Your task to perform on an android device: Search for pizza restaurants on Maps Image 0: 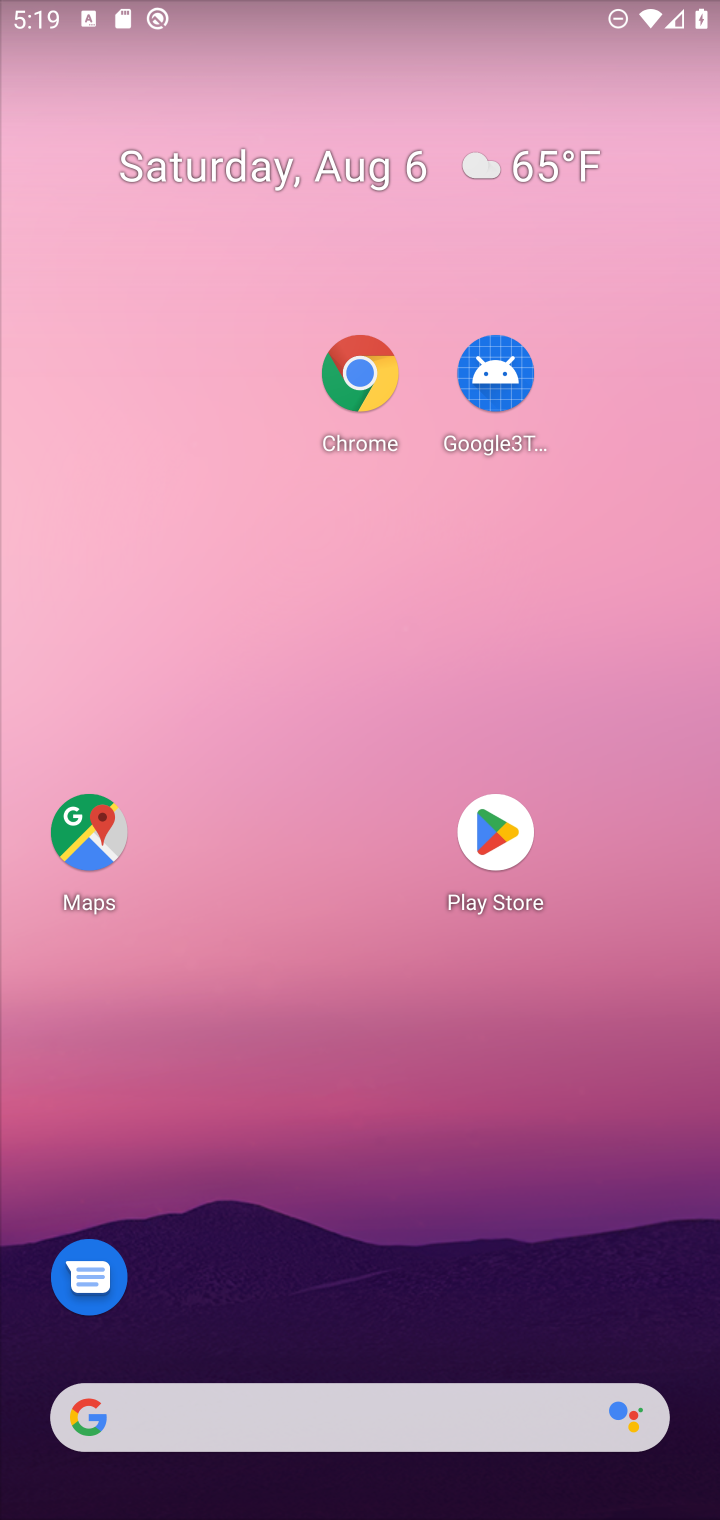
Step 0: drag from (464, 7) to (643, 839)
Your task to perform on an android device: Search for pizza restaurants on Maps Image 1: 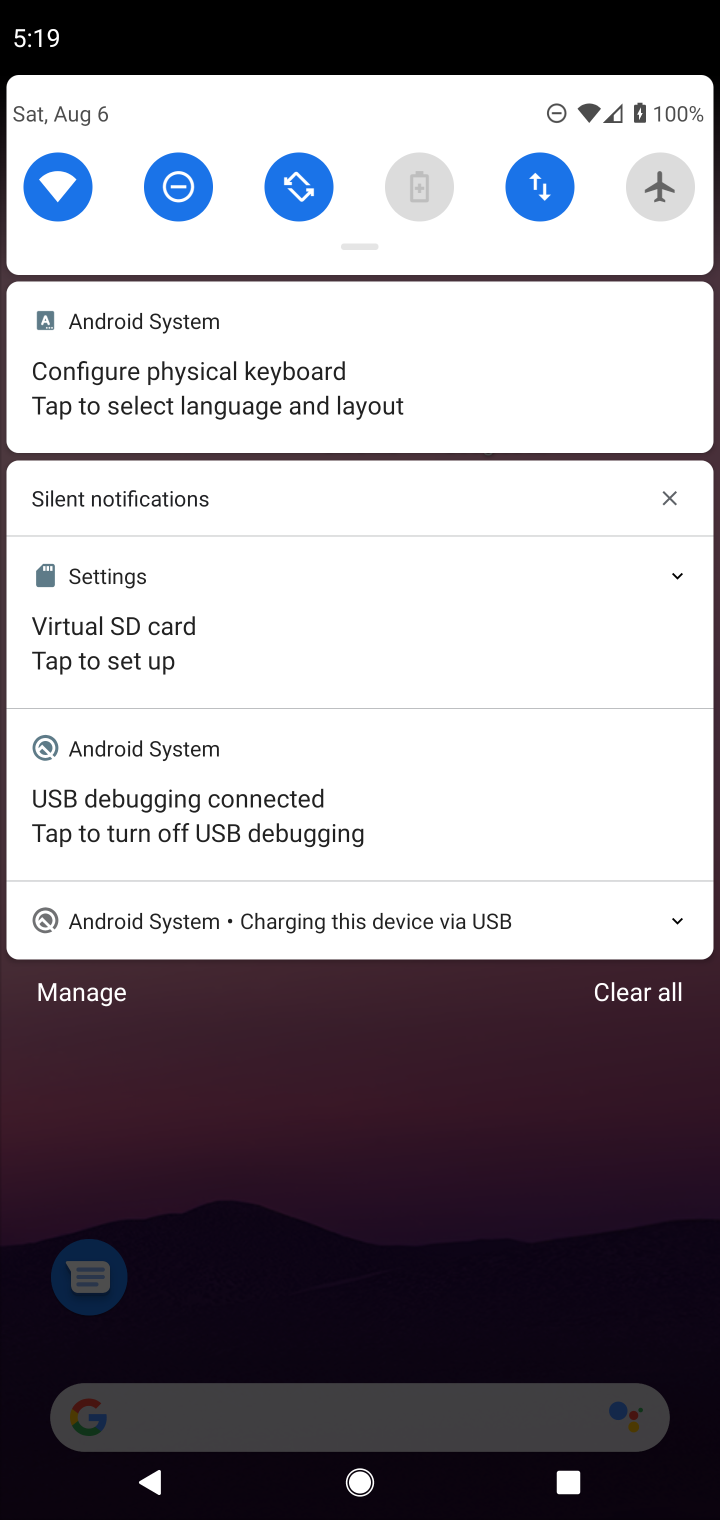
Step 1: drag from (355, 227) to (505, 1114)
Your task to perform on an android device: Search for pizza restaurants on Maps Image 2: 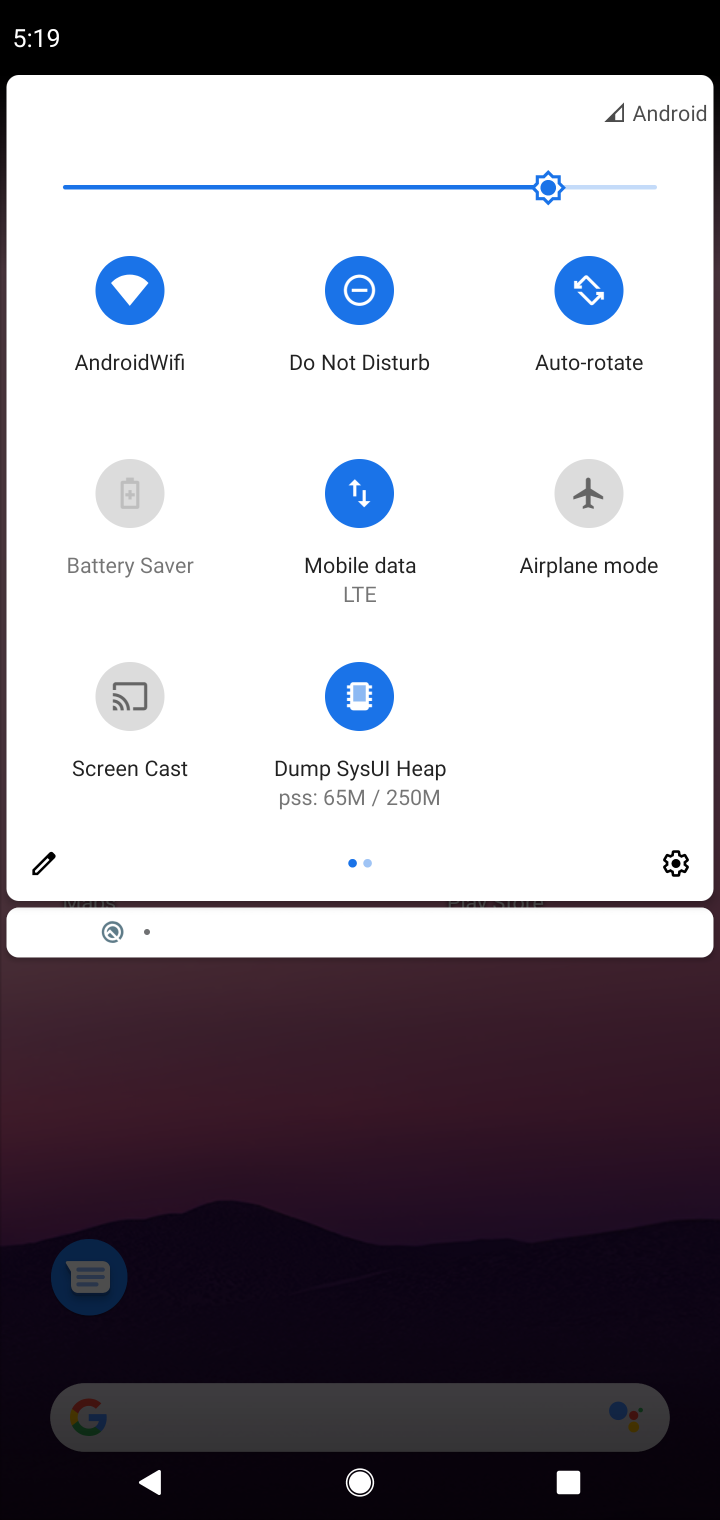
Step 2: click (559, 1132)
Your task to perform on an android device: Search for pizza restaurants on Maps Image 3: 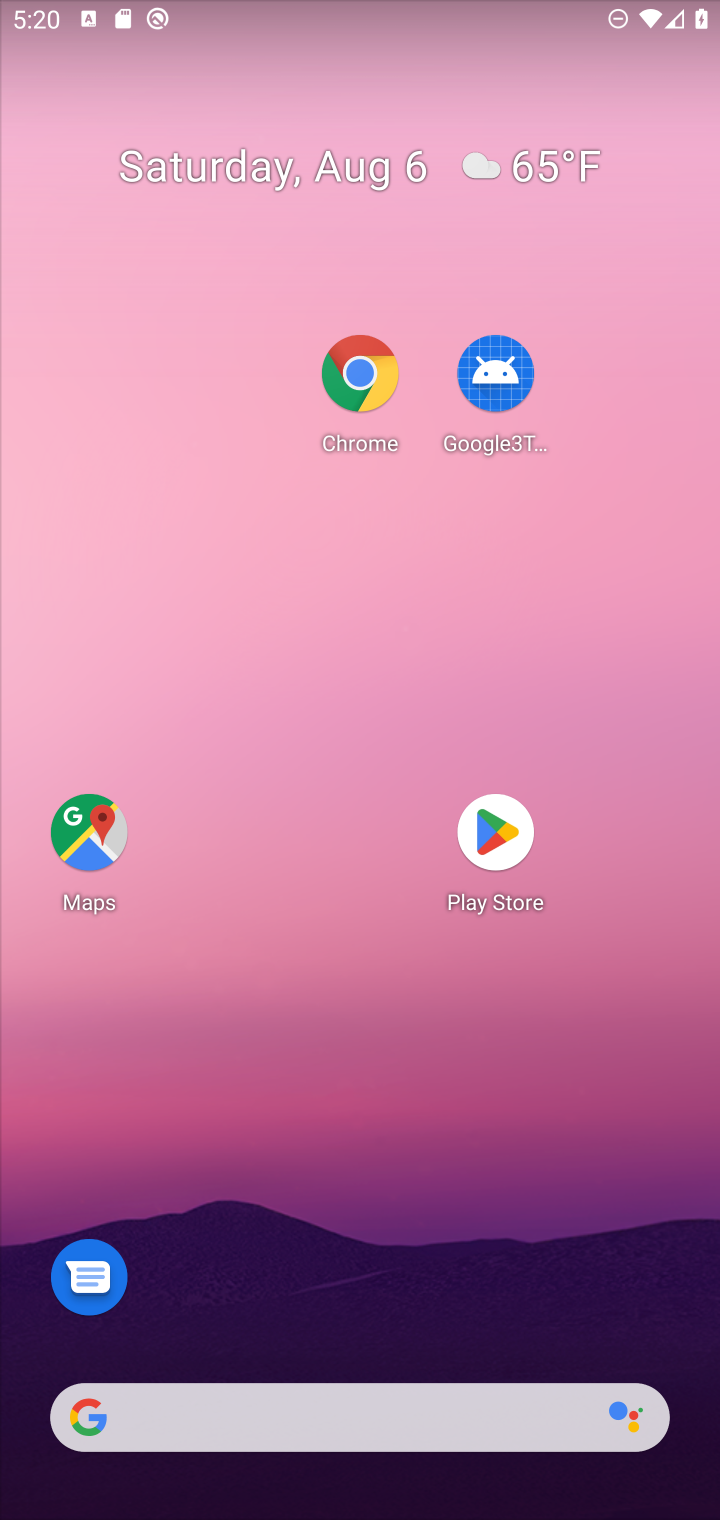
Step 3: drag from (477, 1421) to (413, 51)
Your task to perform on an android device: Search for pizza restaurants on Maps Image 4: 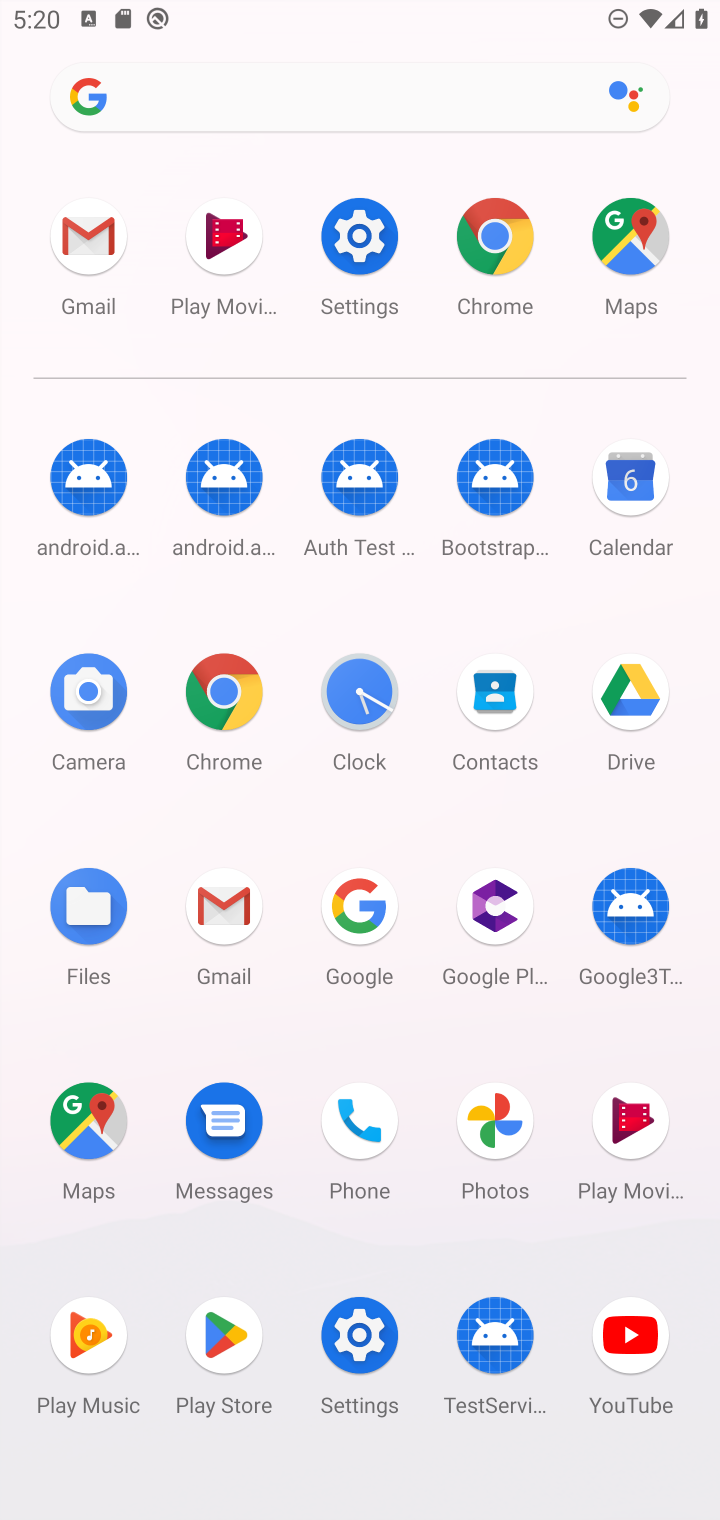
Step 4: click (51, 1097)
Your task to perform on an android device: Search for pizza restaurants on Maps Image 5: 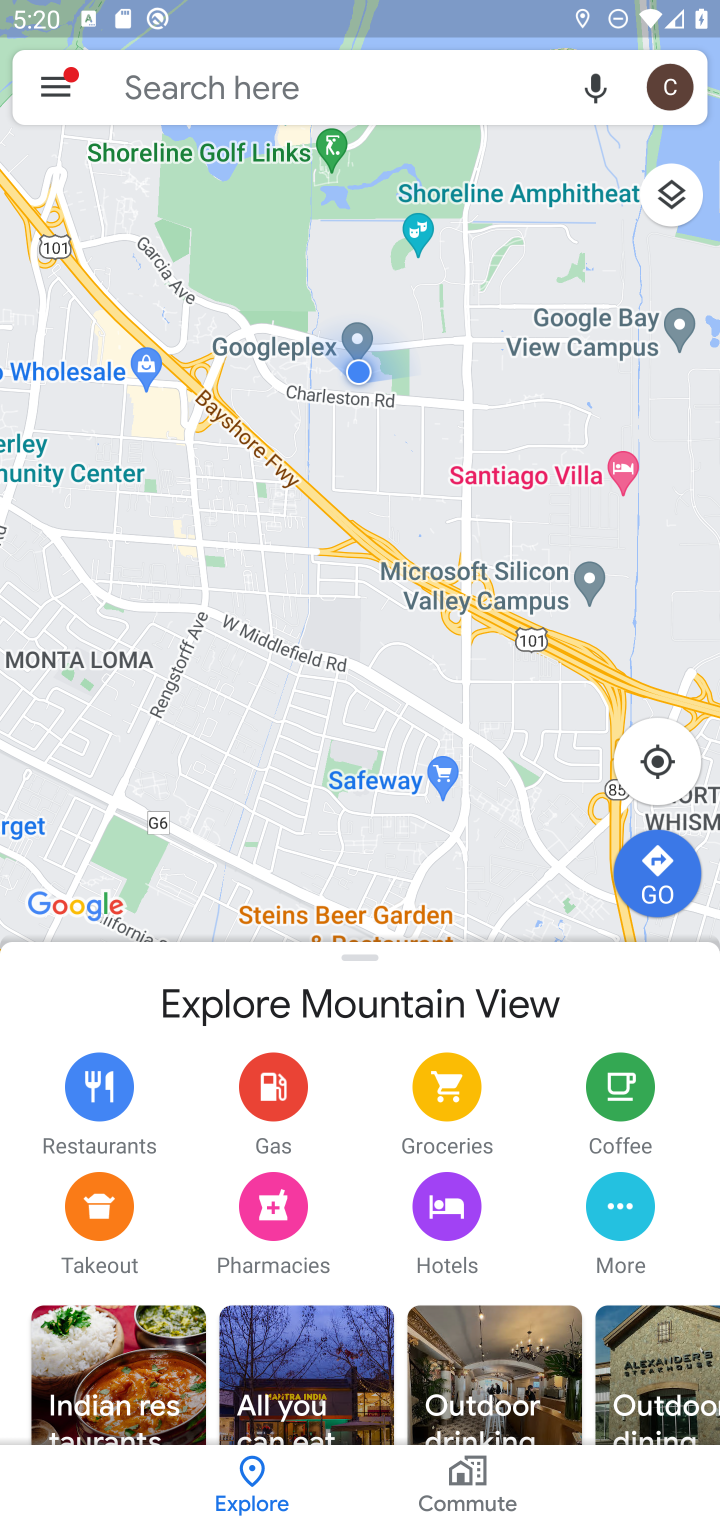
Step 5: click (365, 80)
Your task to perform on an android device: Search for pizza restaurants on Maps Image 6: 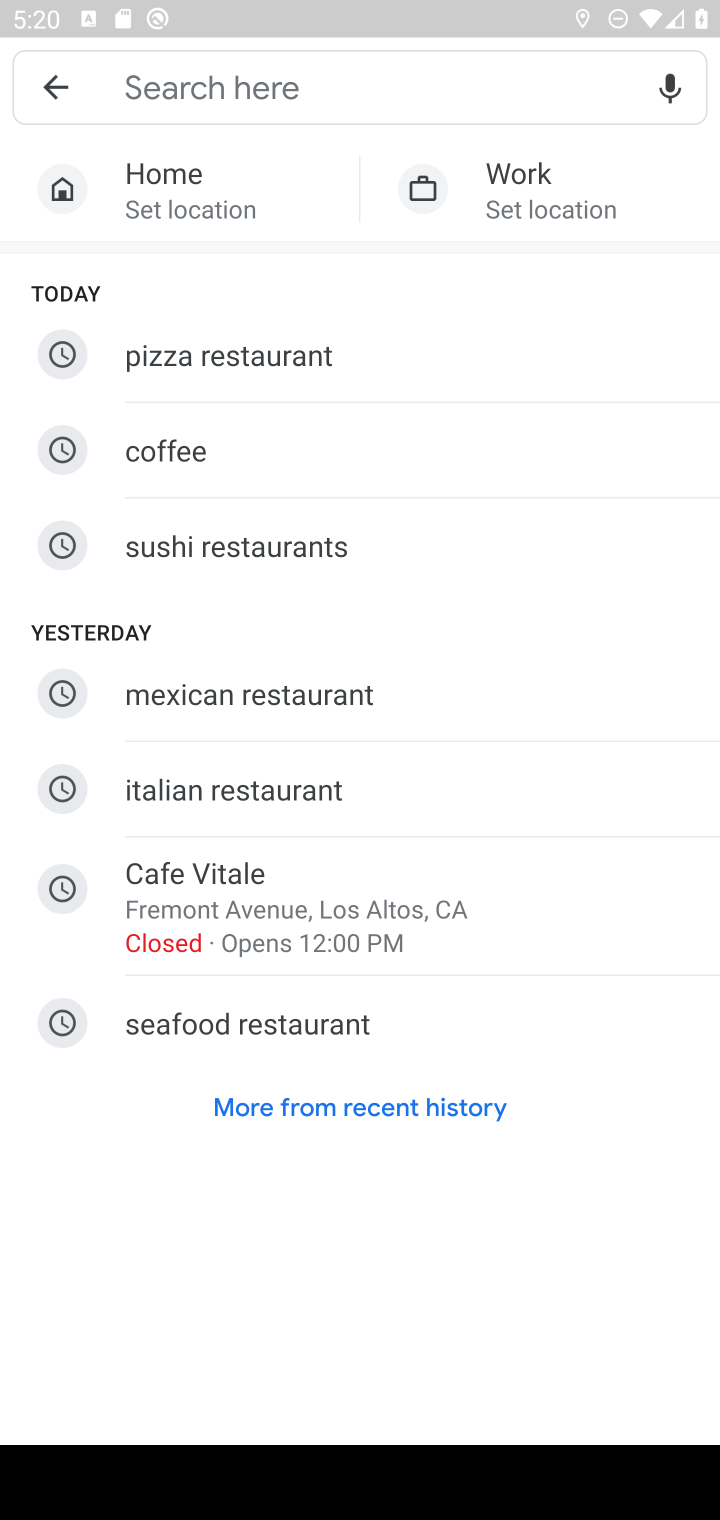
Step 6: click (250, 343)
Your task to perform on an android device: Search for pizza restaurants on Maps Image 7: 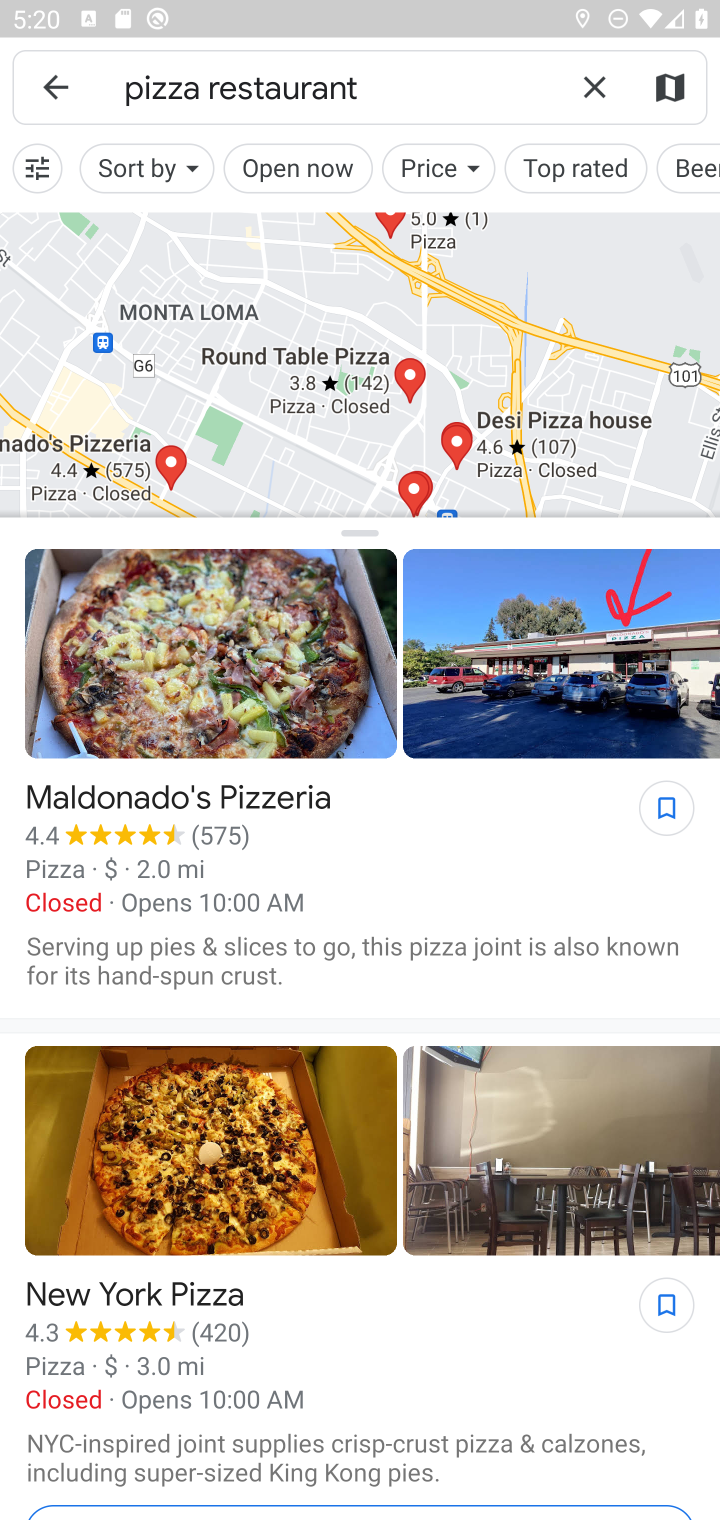
Step 7: task complete